Your task to perform on an android device: turn on translation in the chrome app Image 0: 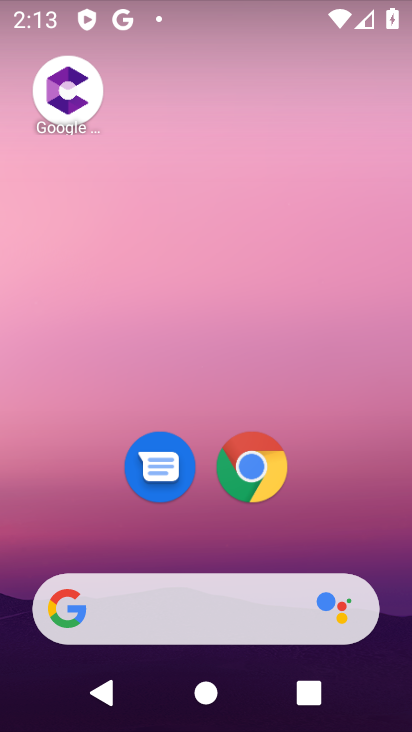
Step 0: click (231, 468)
Your task to perform on an android device: turn on translation in the chrome app Image 1: 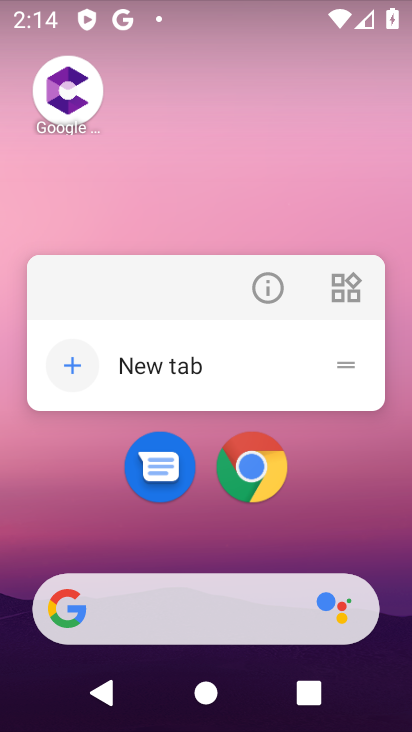
Step 1: click (246, 293)
Your task to perform on an android device: turn on translation in the chrome app Image 2: 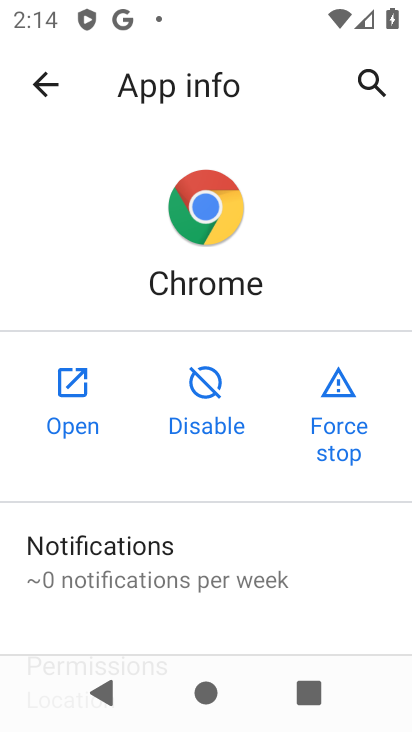
Step 2: click (106, 401)
Your task to perform on an android device: turn on translation in the chrome app Image 3: 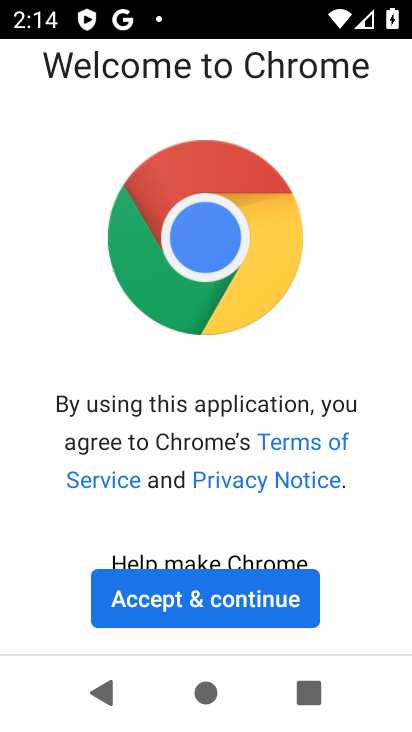
Step 3: click (171, 580)
Your task to perform on an android device: turn on translation in the chrome app Image 4: 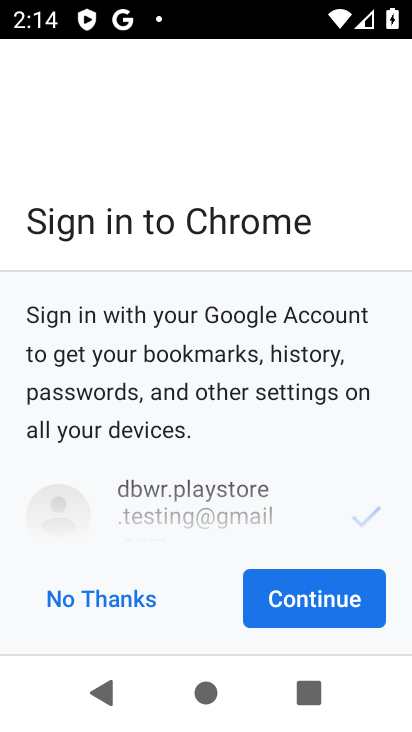
Step 4: click (300, 593)
Your task to perform on an android device: turn on translation in the chrome app Image 5: 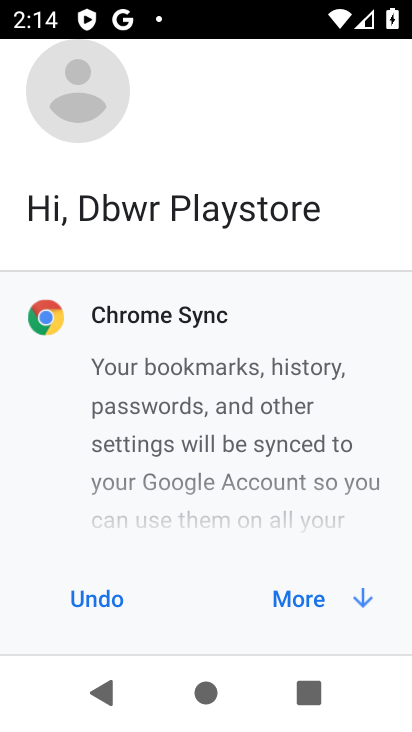
Step 5: click (294, 594)
Your task to perform on an android device: turn on translation in the chrome app Image 6: 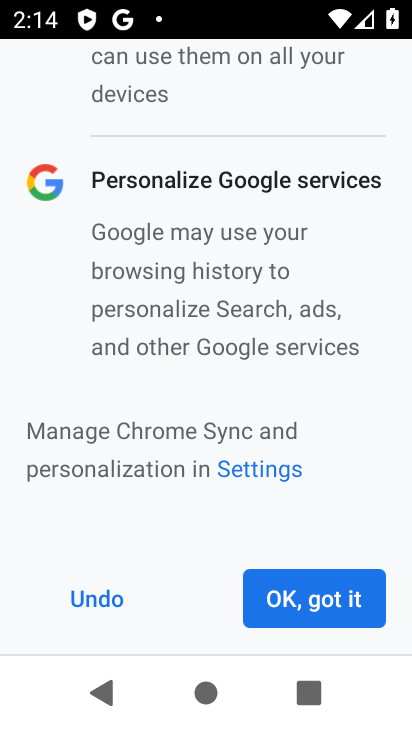
Step 6: click (297, 592)
Your task to perform on an android device: turn on translation in the chrome app Image 7: 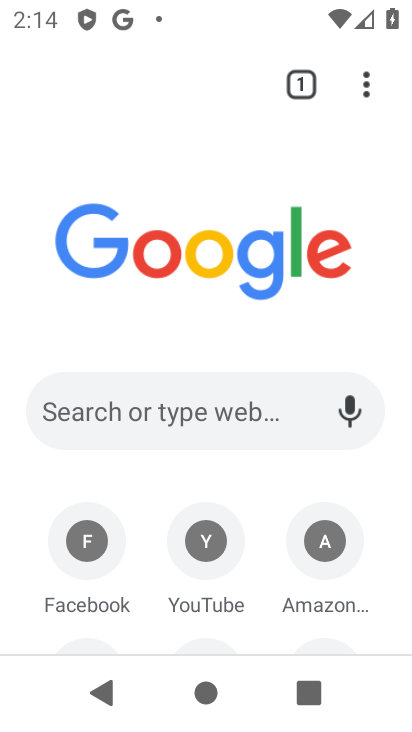
Step 7: click (364, 76)
Your task to perform on an android device: turn on translation in the chrome app Image 8: 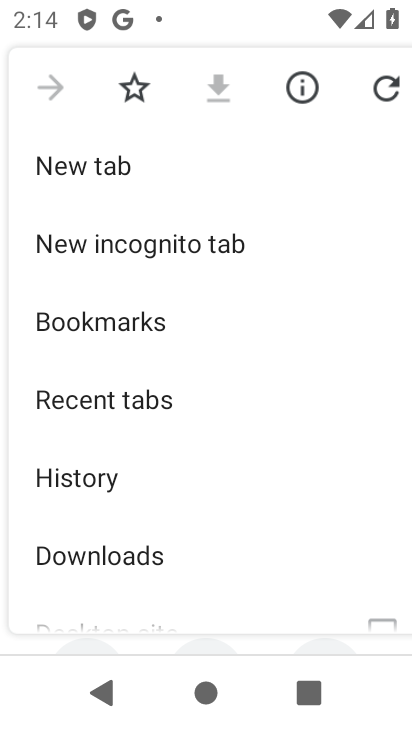
Step 8: drag from (112, 565) to (151, 31)
Your task to perform on an android device: turn on translation in the chrome app Image 9: 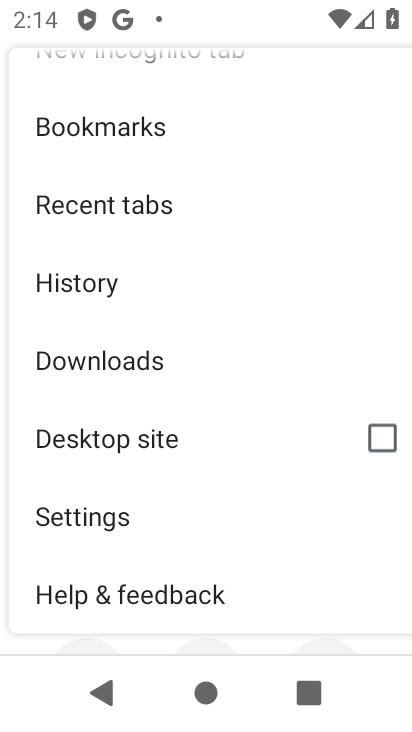
Step 9: drag from (123, 503) to (208, 66)
Your task to perform on an android device: turn on translation in the chrome app Image 10: 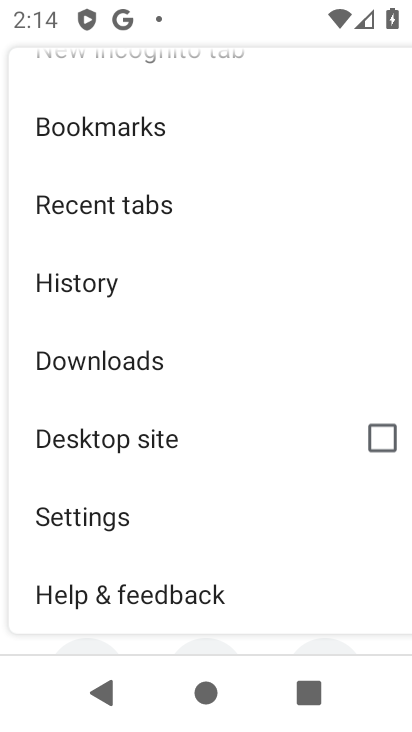
Step 10: click (126, 512)
Your task to perform on an android device: turn on translation in the chrome app Image 11: 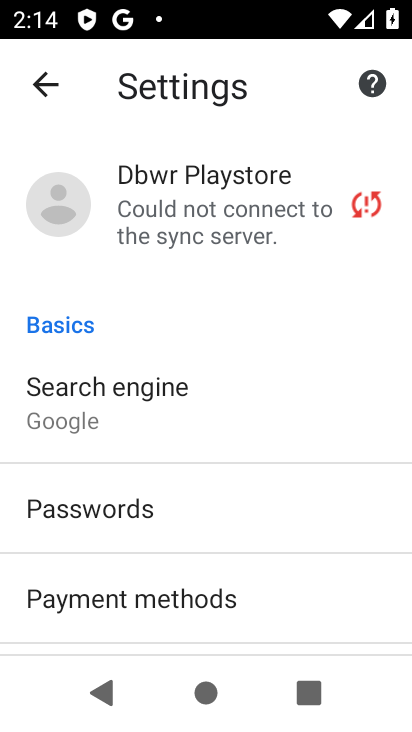
Step 11: drag from (210, 583) to (297, 142)
Your task to perform on an android device: turn on translation in the chrome app Image 12: 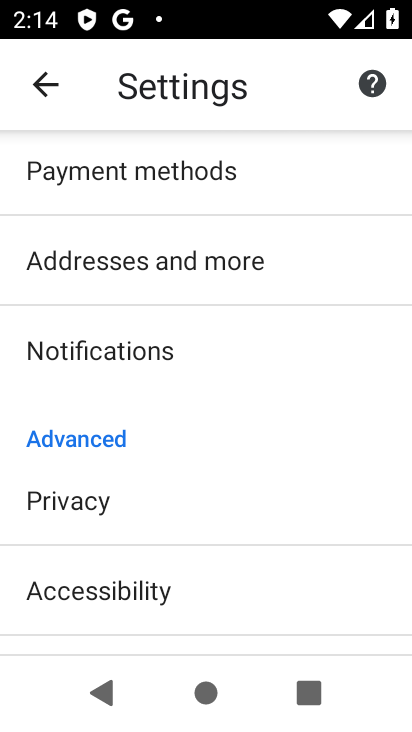
Step 12: drag from (177, 575) to (202, 210)
Your task to perform on an android device: turn on translation in the chrome app Image 13: 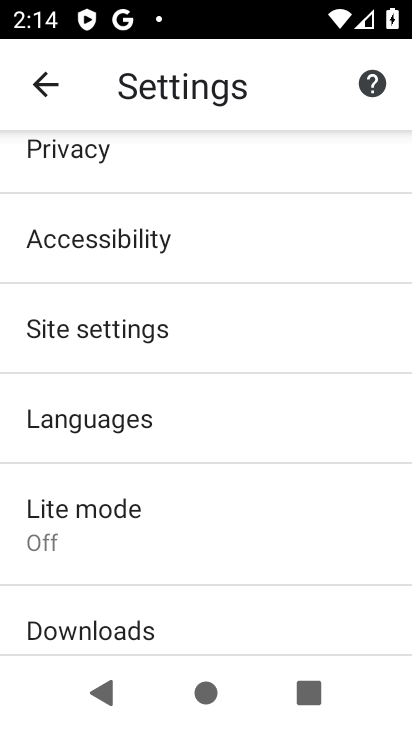
Step 13: click (130, 426)
Your task to perform on an android device: turn on translation in the chrome app Image 14: 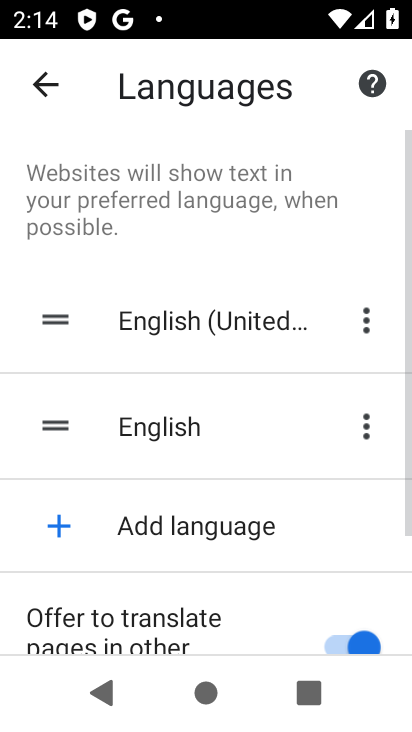
Step 14: task complete